Your task to perform on an android device: turn off priority inbox in the gmail app Image 0: 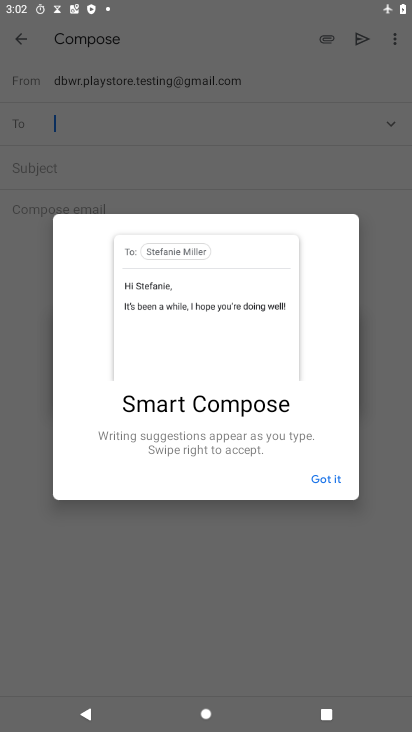
Step 0: press home button
Your task to perform on an android device: turn off priority inbox in the gmail app Image 1: 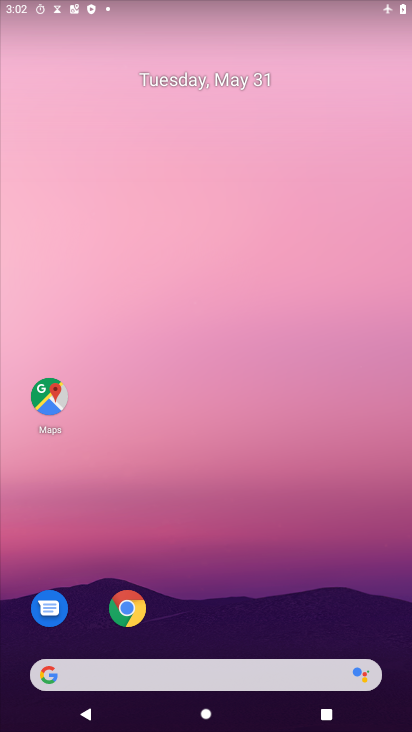
Step 1: drag from (226, 592) to (345, 39)
Your task to perform on an android device: turn off priority inbox in the gmail app Image 2: 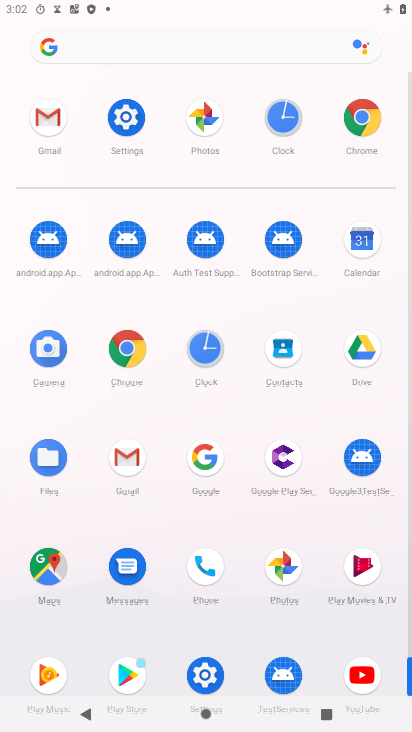
Step 2: click (132, 463)
Your task to perform on an android device: turn off priority inbox in the gmail app Image 3: 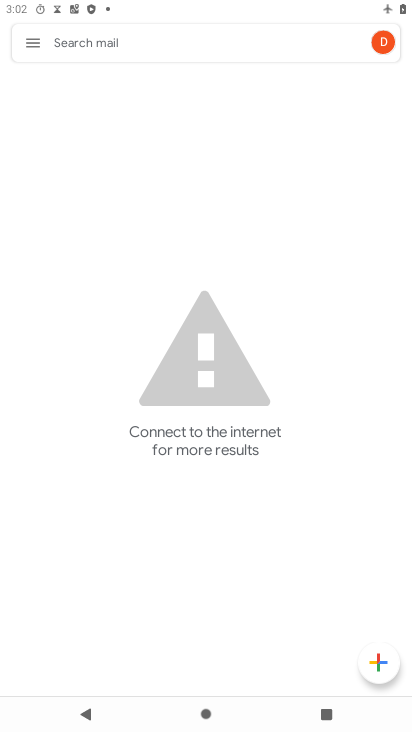
Step 3: click (32, 41)
Your task to perform on an android device: turn off priority inbox in the gmail app Image 4: 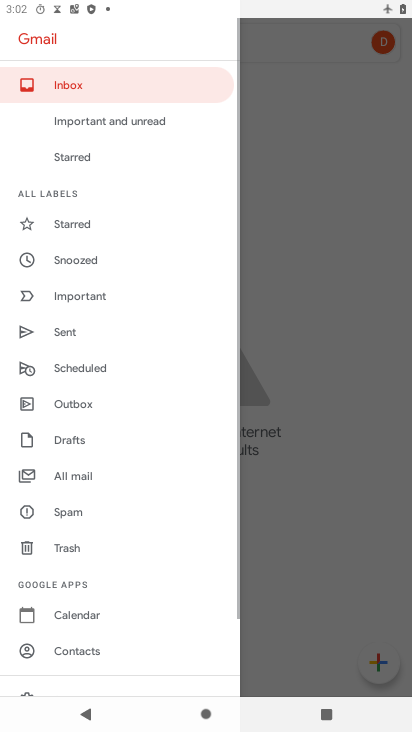
Step 4: drag from (119, 635) to (156, 279)
Your task to perform on an android device: turn off priority inbox in the gmail app Image 5: 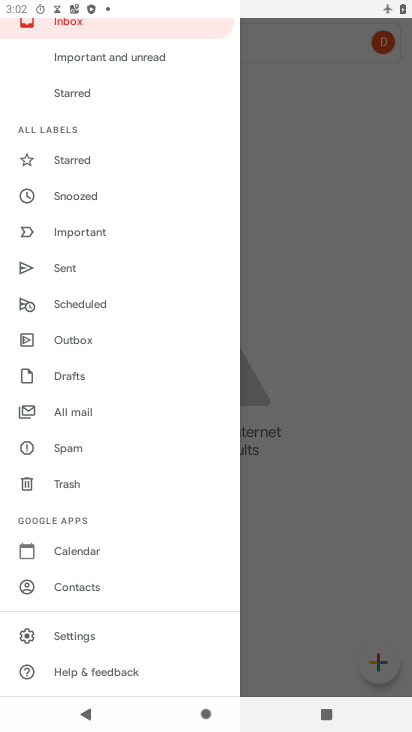
Step 5: click (81, 643)
Your task to perform on an android device: turn off priority inbox in the gmail app Image 6: 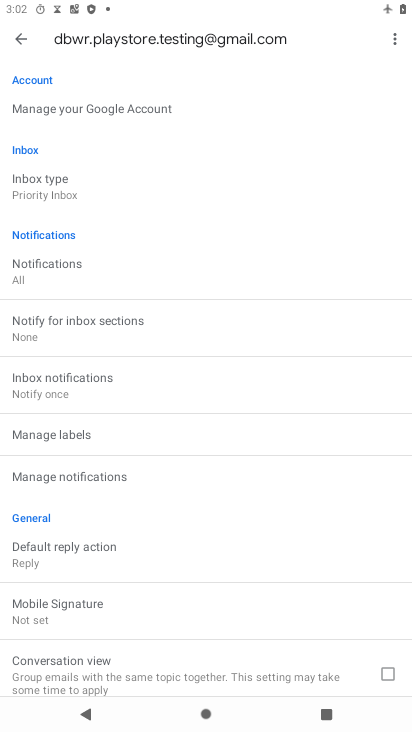
Step 6: click (63, 196)
Your task to perform on an android device: turn off priority inbox in the gmail app Image 7: 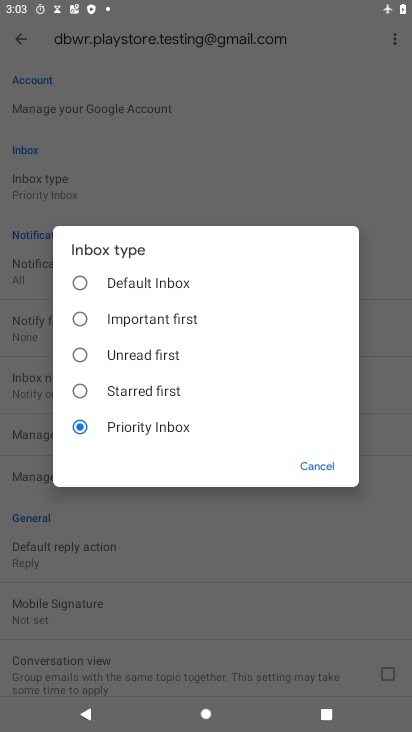
Step 7: click (126, 280)
Your task to perform on an android device: turn off priority inbox in the gmail app Image 8: 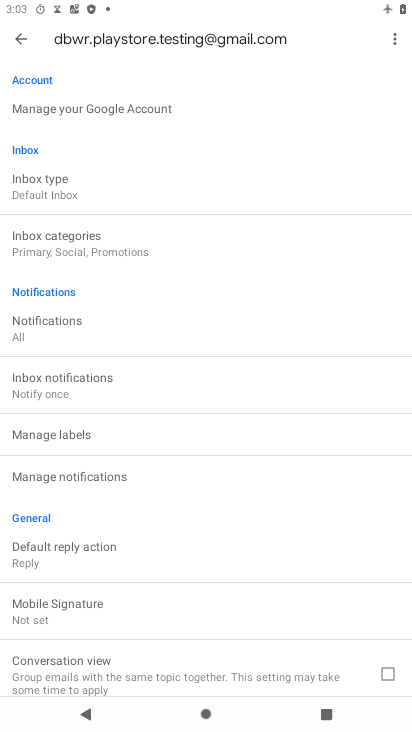
Step 8: task complete